Your task to perform on an android device: Search for Italian restaurants on Maps Image 0: 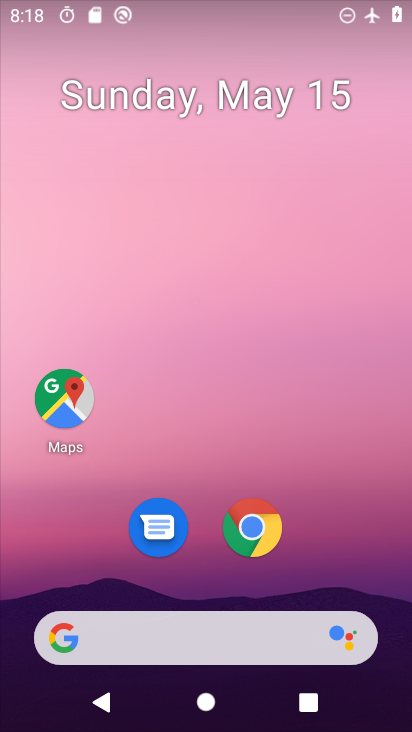
Step 0: click (58, 431)
Your task to perform on an android device: Search for Italian restaurants on Maps Image 1: 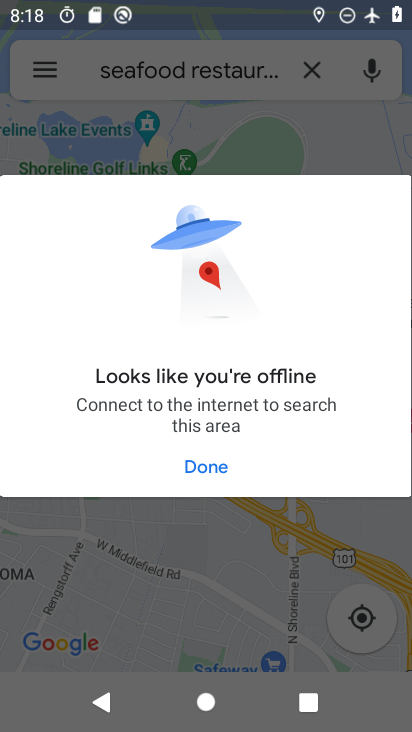
Step 1: click (216, 468)
Your task to perform on an android device: Search for Italian restaurants on Maps Image 2: 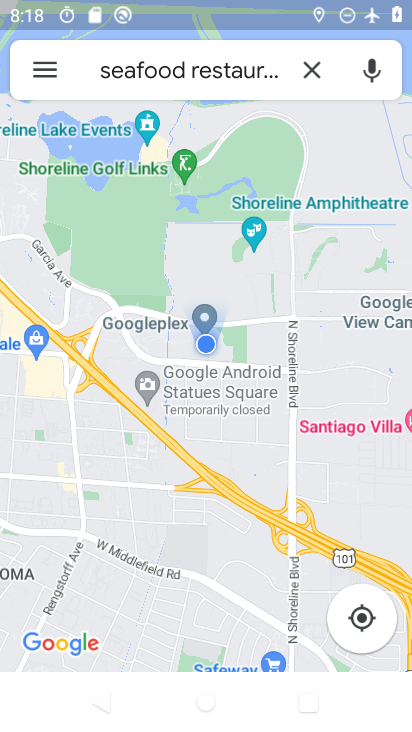
Step 2: click (309, 69)
Your task to perform on an android device: Search for Italian restaurants on Maps Image 3: 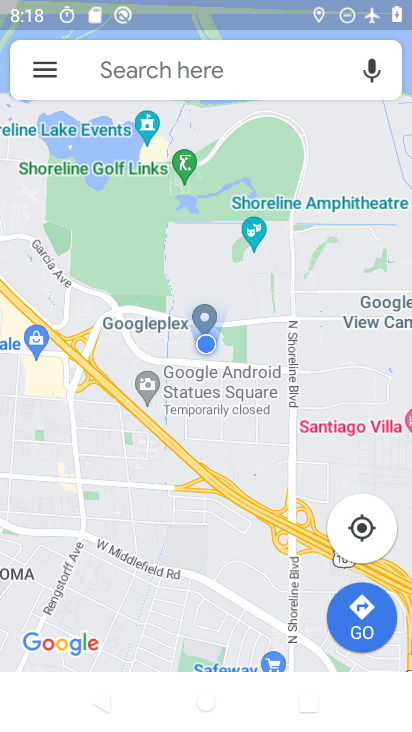
Step 3: click (245, 73)
Your task to perform on an android device: Search for Italian restaurants on Maps Image 4: 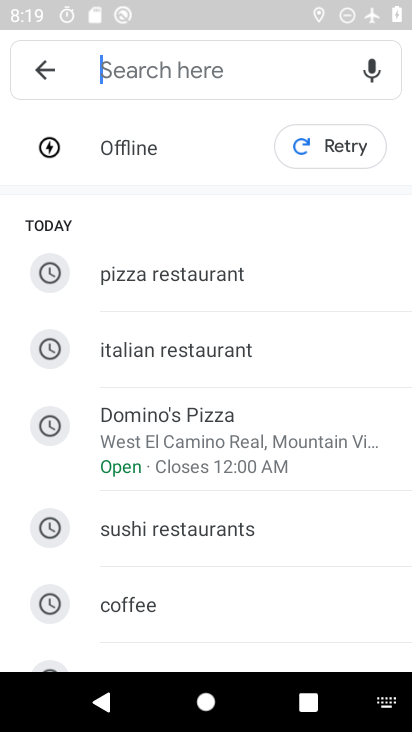
Step 4: click (188, 356)
Your task to perform on an android device: Search for Italian restaurants on Maps Image 5: 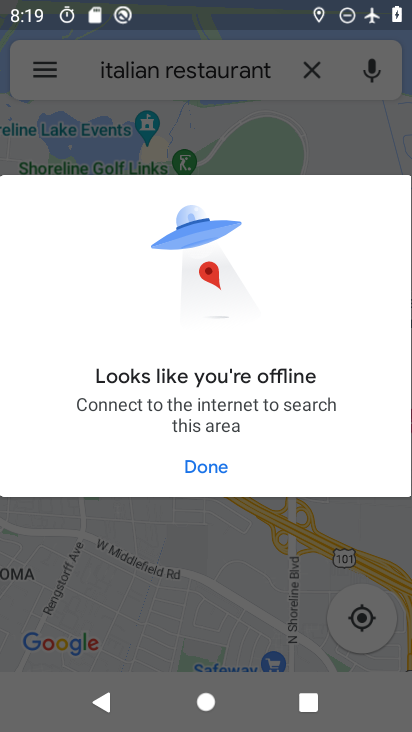
Step 5: task complete